Your task to perform on an android device: turn off picture-in-picture Image 0: 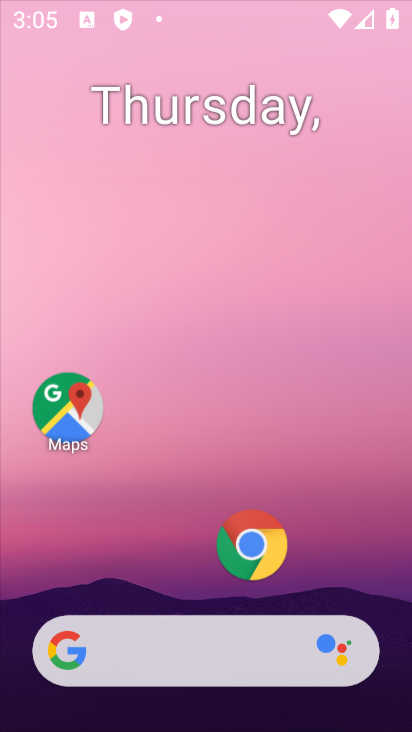
Step 0: drag from (283, 3) to (319, 18)
Your task to perform on an android device: turn off picture-in-picture Image 1: 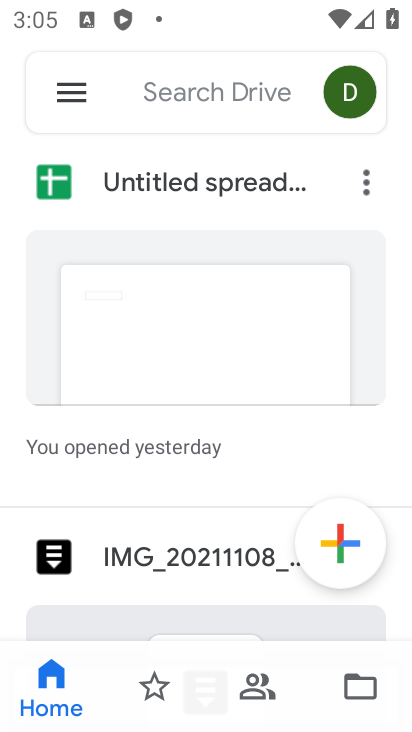
Step 1: press home button
Your task to perform on an android device: turn off picture-in-picture Image 2: 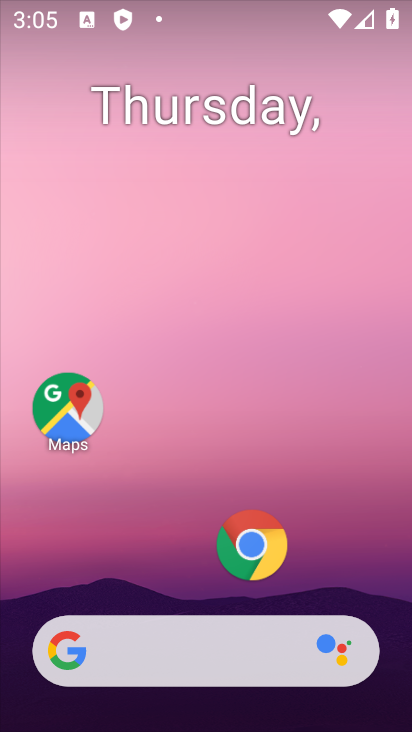
Step 2: drag from (315, 609) to (401, 236)
Your task to perform on an android device: turn off picture-in-picture Image 3: 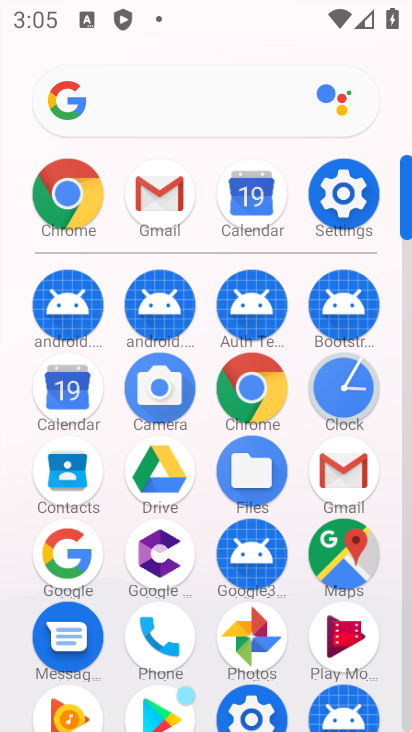
Step 3: click (343, 202)
Your task to perform on an android device: turn off picture-in-picture Image 4: 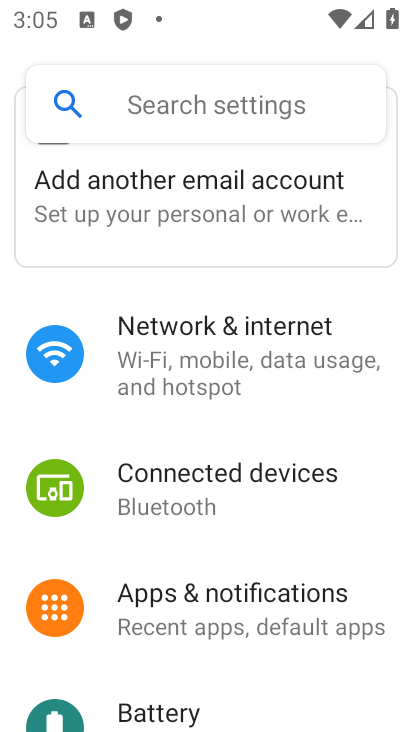
Step 4: drag from (340, 194) to (302, 397)
Your task to perform on an android device: turn off picture-in-picture Image 5: 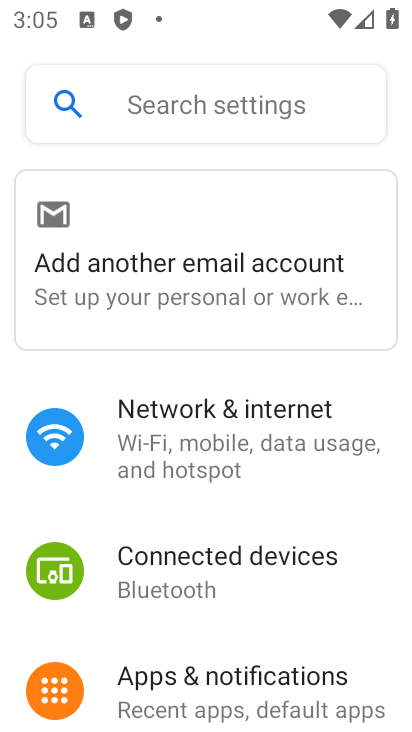
Step 5: click (243, 449)
Your task to perform on an android device: turn off picture-in-picture Image 6: 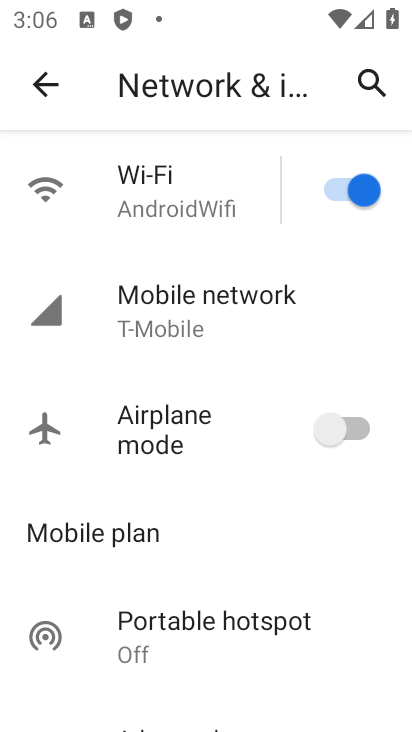
Step 6: drag from (259, 619) to (260, 116)
Your task to perform on an android device: turn off picture-in-picture Image 7: 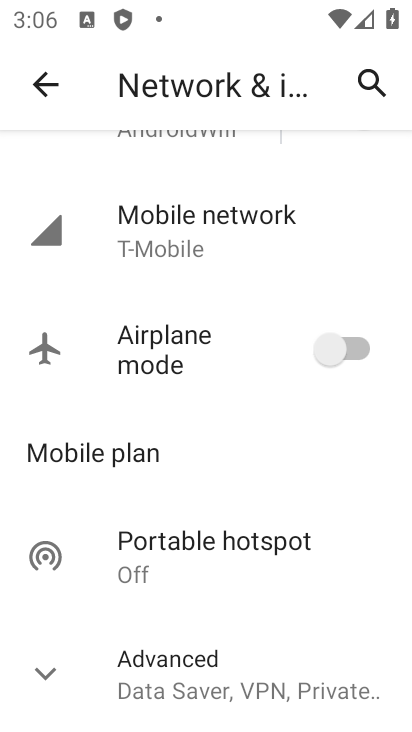
Step 7: drag from (261, 256) to (237, 709)
Your task to perform on an android device: turn off picture-in-picture Image 8: 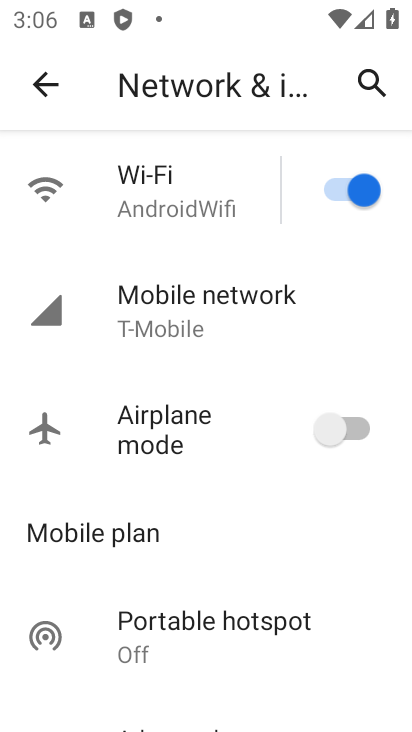
Step 8: drag from (265, 680) to (365, 125)
Your task to perform on an android device: turn off picture-in-picture Image 9: 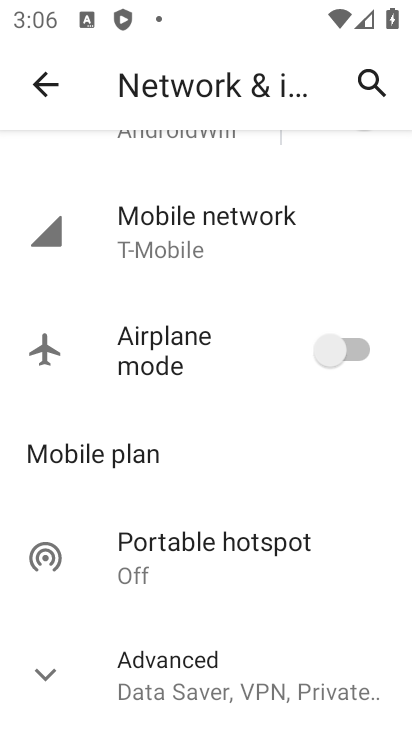
Step 9: press back button
Your task to perform on an android device: turn off picture-in-picture Image 10: 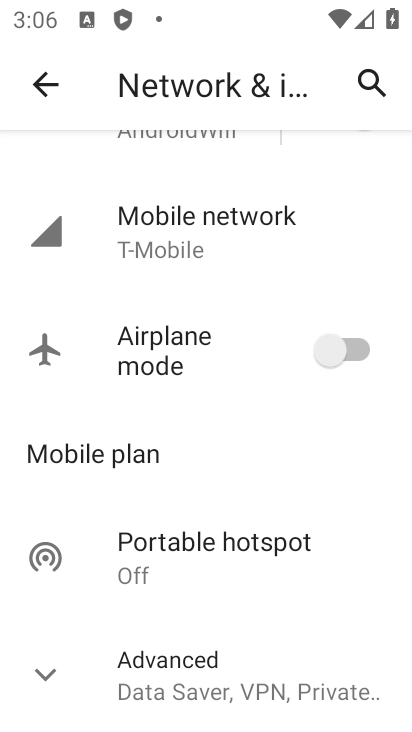
Step 10: drag from (365, 125) to (377, 587)
Your task to perform on an android device: turn off picture-in-picture Image 11: 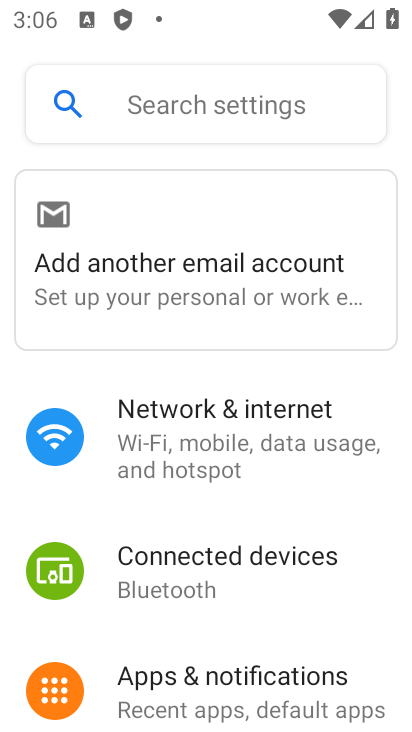
Step 11: click (221, 683)
Your task to perform on an android device: turn off picture-in-picture Image 12: 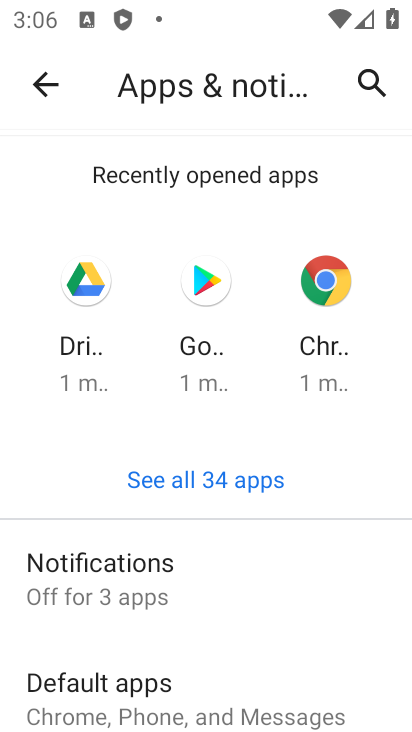
Step 12: drag from (209, 694) to (233, 2)
Your task to perform on an android device: turn off picture-in-picture Image 13: 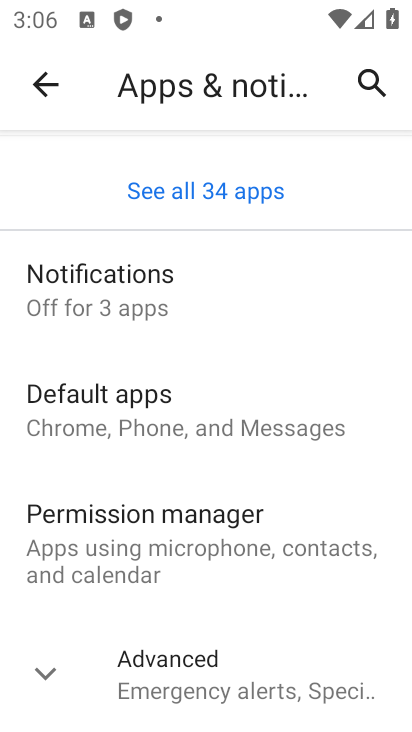
Step 13: click (228, 661)
Your task to perform on an android device: turn off picture-in-picture Image 14: 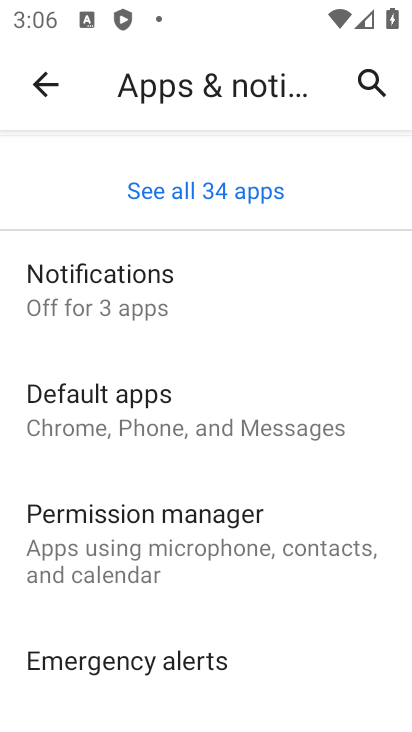
Step 14: drag from (226, 688) to (303, 83)
Your task to perform on an android device: turn off picture-in-picture Image 15: 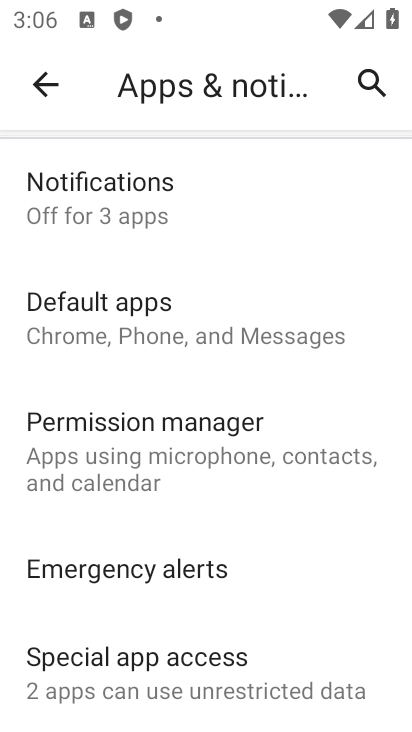
Step 15: click (242, 701)
Your task to perform on an android device: turn off picture-in-picture Image 16: 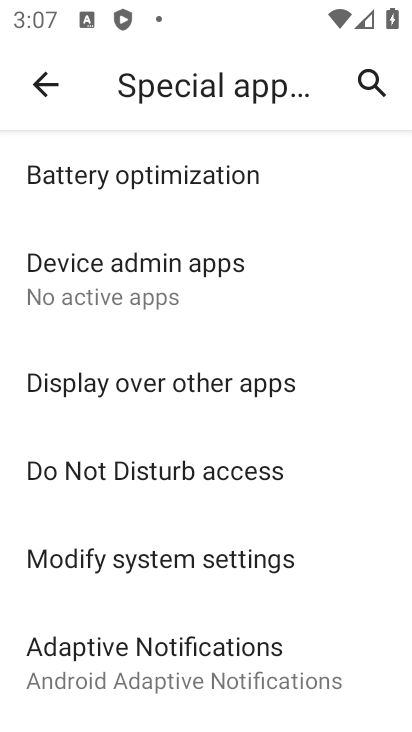
Step 16: drag from (330, 635) to (377, 123)
Your task to perform on an android device: turn off picture-in-picture Image 17: 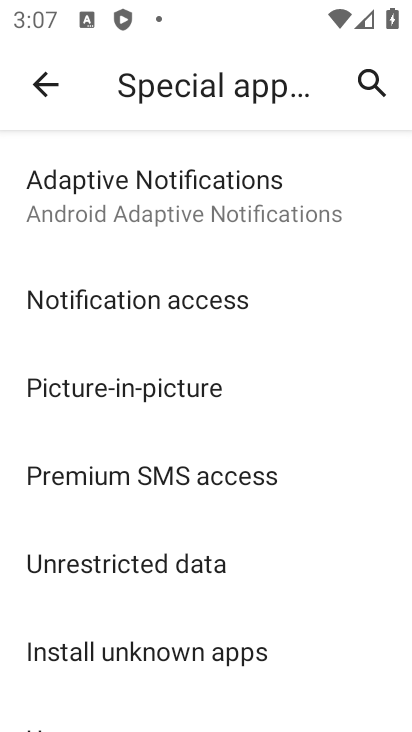
Step 17: click (191, 388)
Your task to perform on an android device: turn off picture-in-picture Image 18: 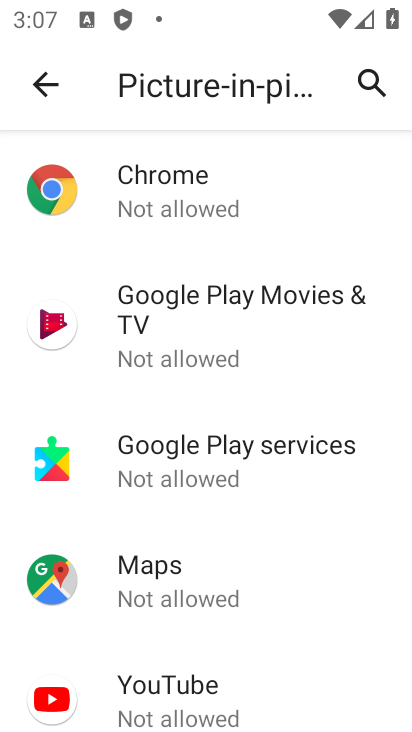
Step 18: task complete